Your task to perform on an android device: Search for seafood restaurants on Google Maps Image 0: 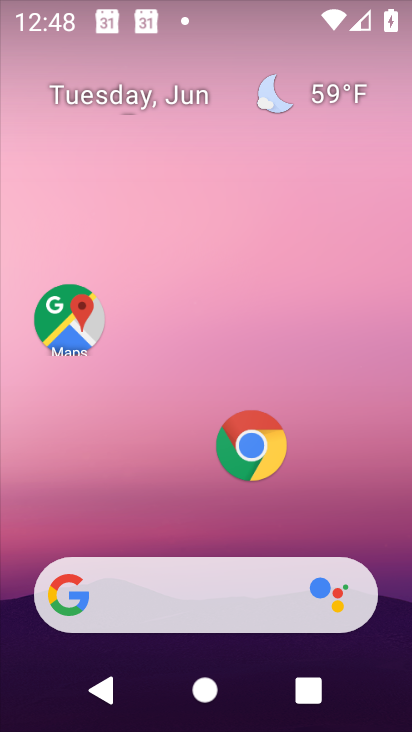
Step 0: click (82, 328)
Your task to perform on an android device: Search for seafood restaurants on Google Maps Image 1: 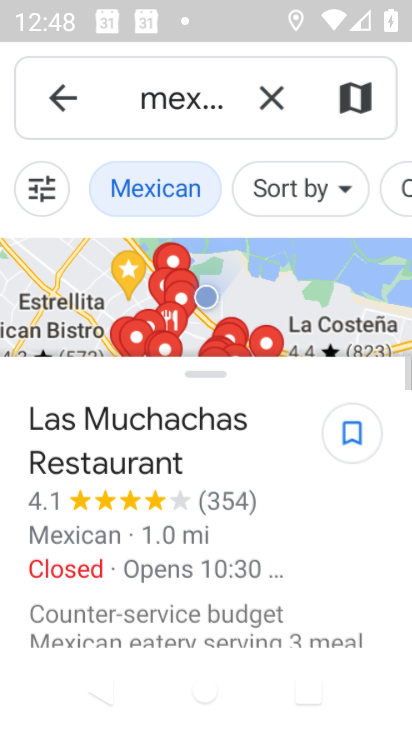
Step 1: click (279, 83)
Your task to perform on an android device: Search for seafood restaurants on Google Maps Image 2: 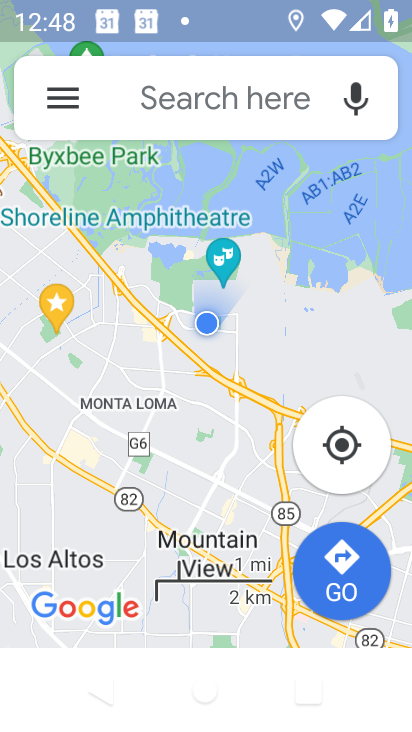
Step 2: click (207, 121)
Your task to perform on an android device: Search for seafood restaurants on Google Maps Image 3: 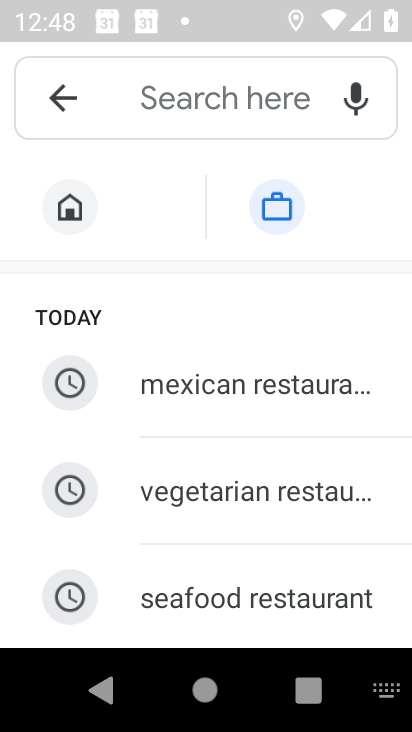
Step 3: click (269, 614)
Your task to perform on an android device: Search for seafood restaurants on Google Maps Image 4: 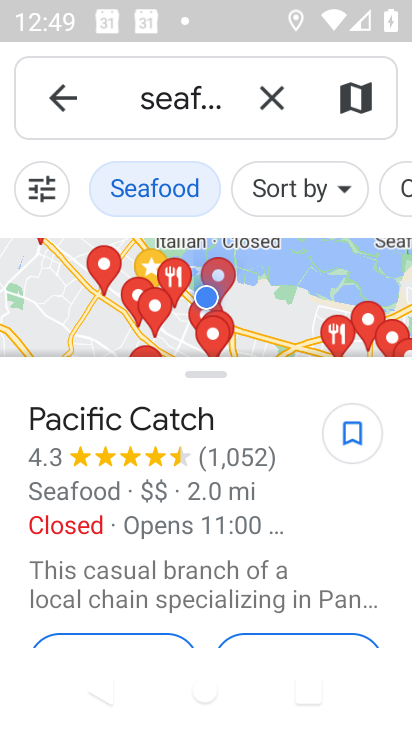
Step 4: task complete